Your task to perform on an android device: Open a new Chrome window Image 0: 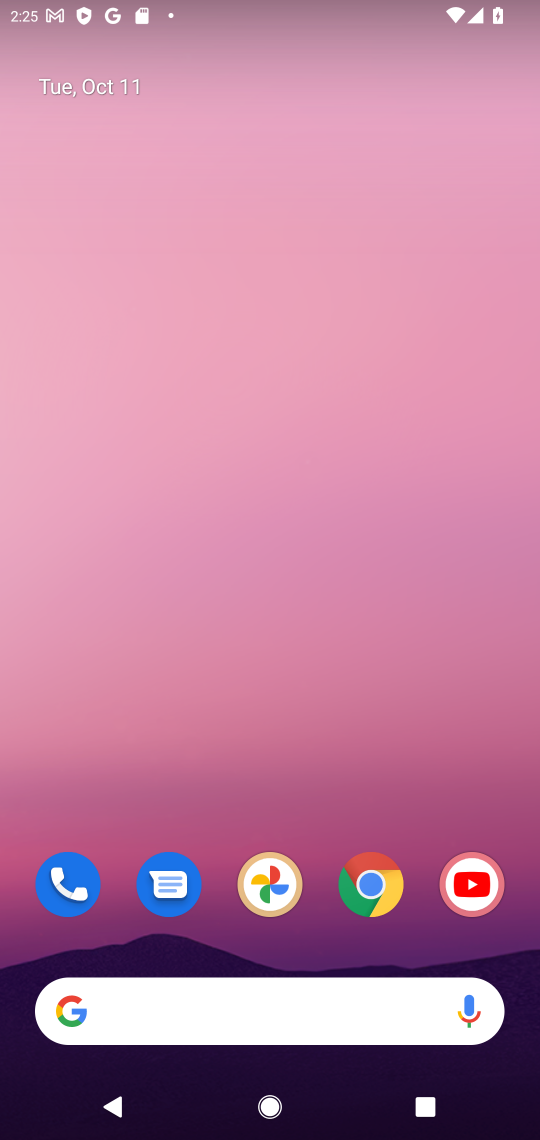
Step 0: click (370, 887)
Your task to perform on an android device: Open a new Chrome window Image 1: 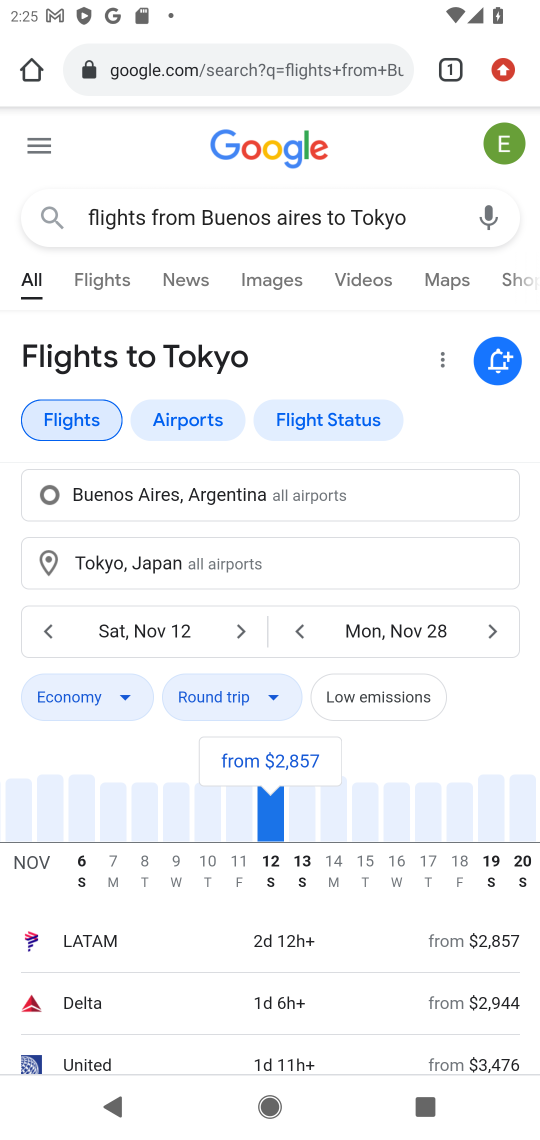
Step 1: click (504, 70)
Your task to perform on an android device: Open a new Chrome window Image 2: 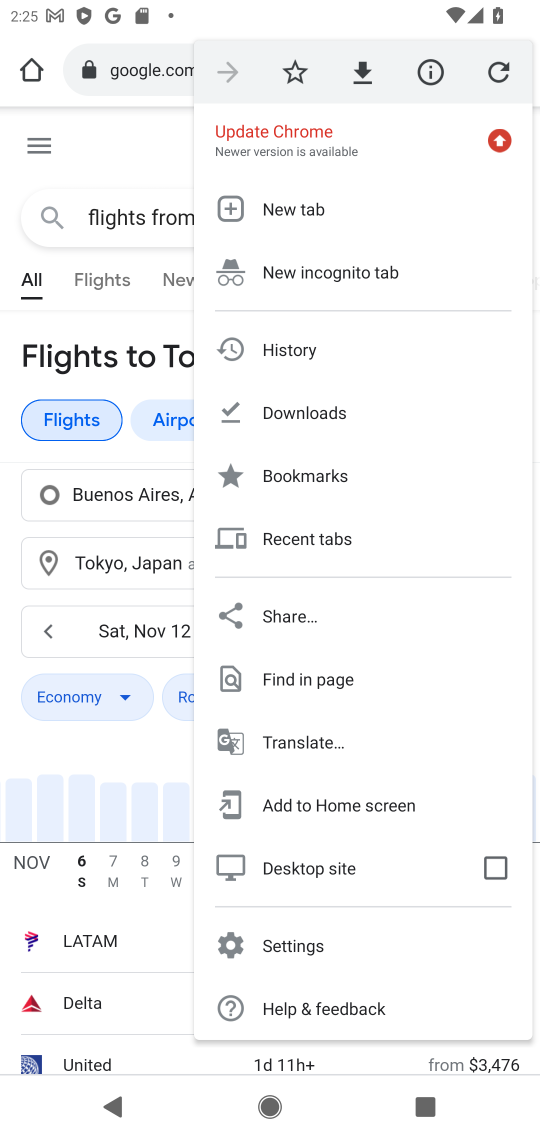
Step 2: click (299, 208)
Your task to perform on an android device: Open a new Chrome window Image 3: 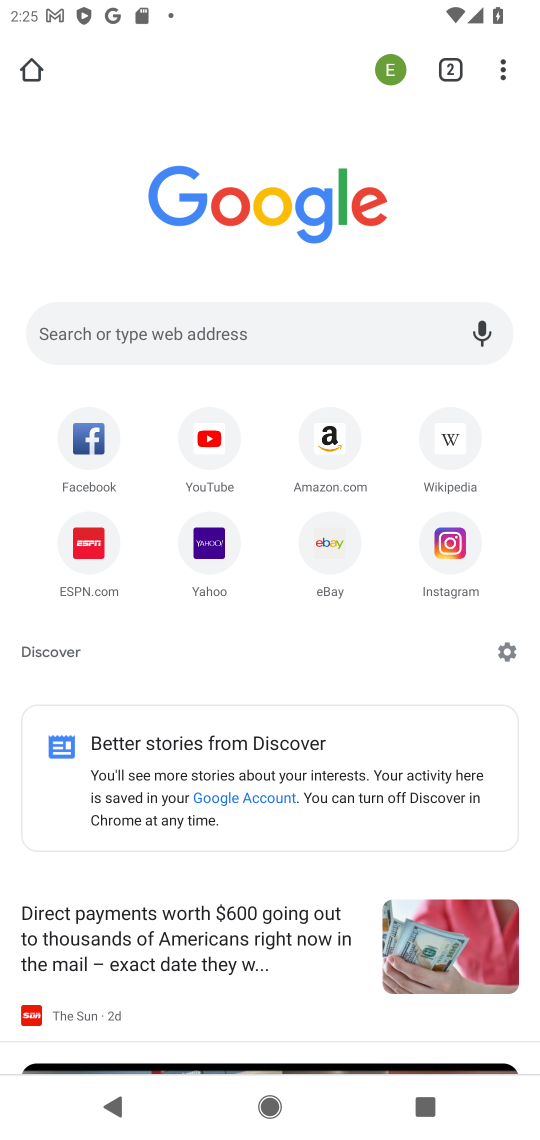
Step 3: task complete